Your task to perform on an android device: change the upload size in google photos Image 0: 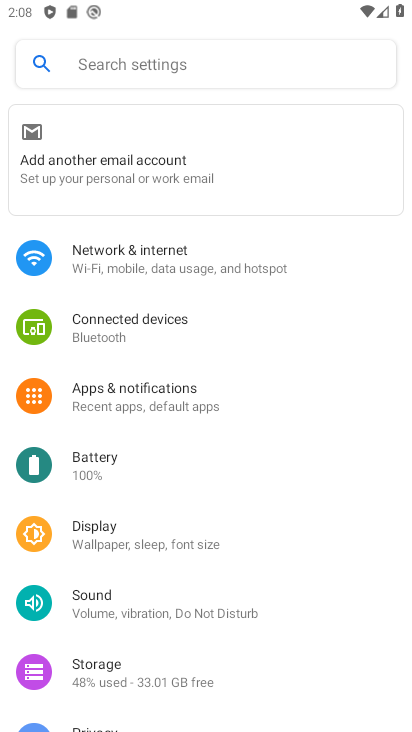
Step 0: press home button
Your task to perform on an android device: change the upload size in google photos Image 1: 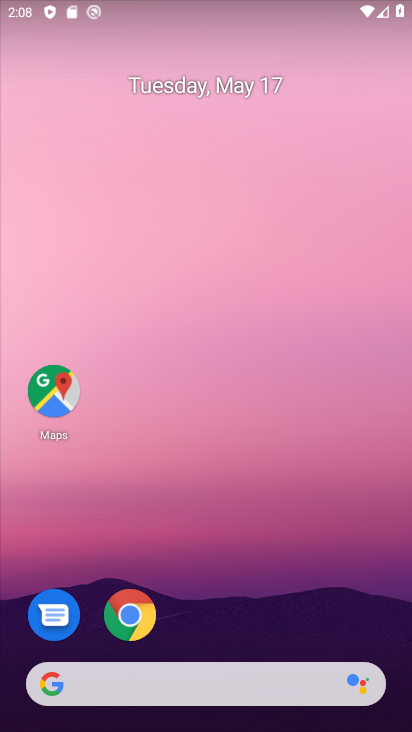
Step 1: drag from (229, 643) to (272, 160)
Your task to perform on an android device: change the upload size in google photos Image 2: 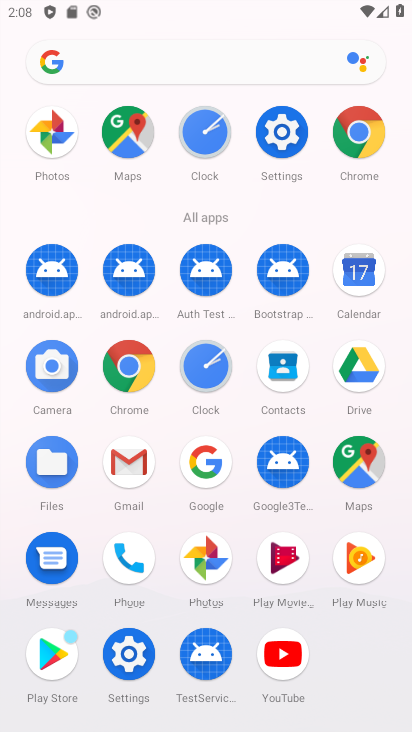
Step 2: click (204, 551)
Your task to perform on an android device: change the upload size in google photos Image 3: 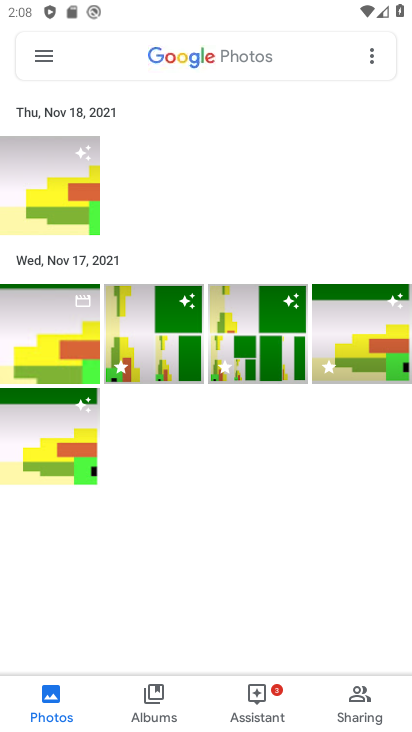
Step 3: click (43, 55)
Your task to perform on an android device: change the upload size in google photos Image 4: 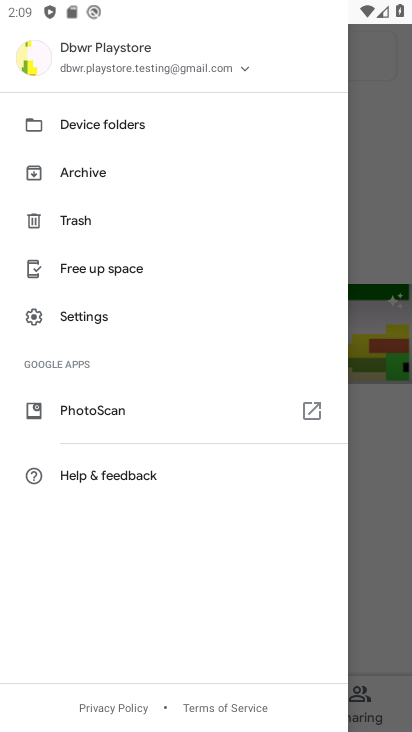
Step 4: click (117, 317)
Your task to perform on an android device: change the upload size in google photos Image 5: 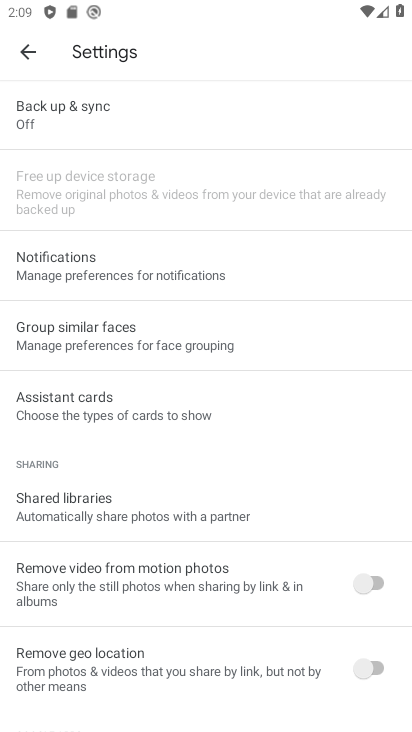
Step 5: click (103, 120)
Your task to perform on an android device: change the upload size in google photos Image 6: 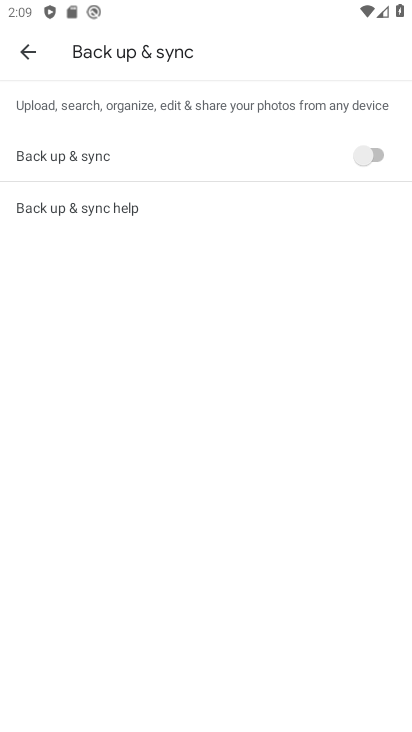
Step 6: click (33, 48)
Your task to perform on an android device: change the upload size in google photos Image 7: 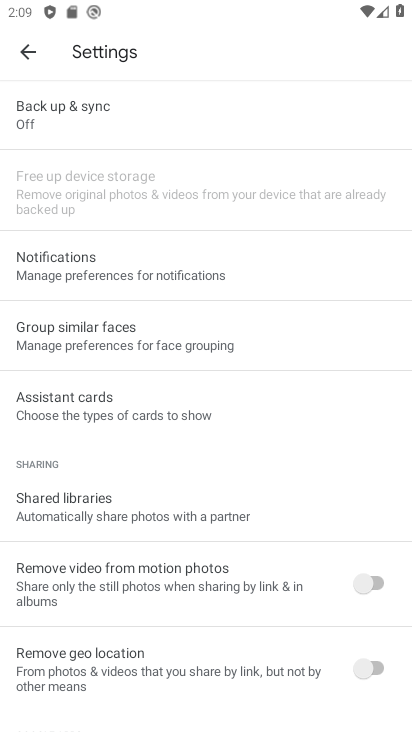
Step 7: drag from (124, 482) to (155, 37)
Your task to perform on an android device: change the upload size in google photos Image 8: 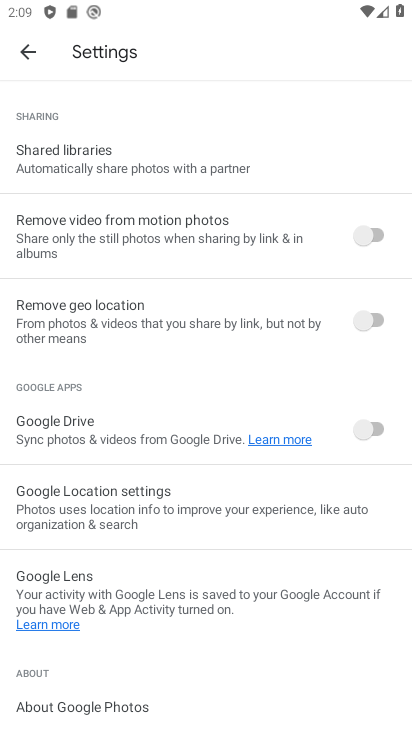
Step 8: drag from (135, 166) to (108, 645)
Your task to perform on an android device: change the upload size in google photos Image 9: 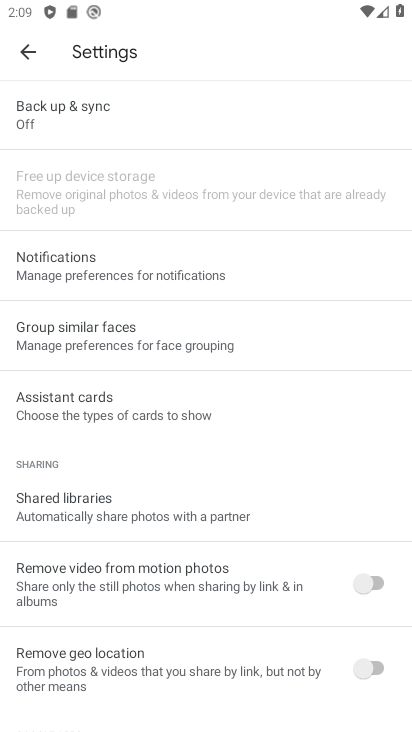
Step 9: click (93, 128)
Your task to perform on an android device: change the upload size in google photos Image 10: 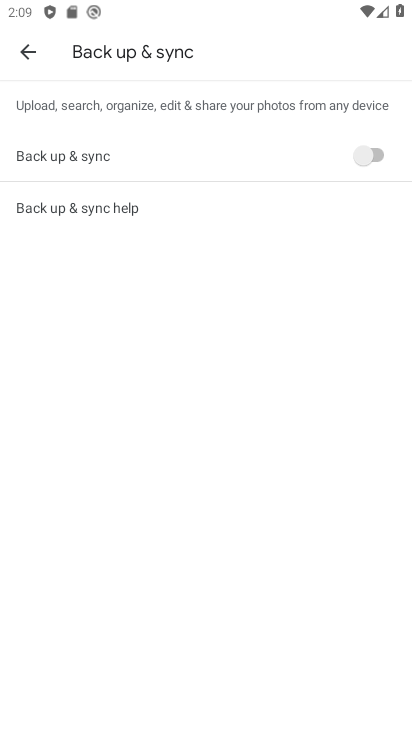
Step 10: click (378, 151)
Your task to perform on an android device: change the upload size in google photos Image 11: 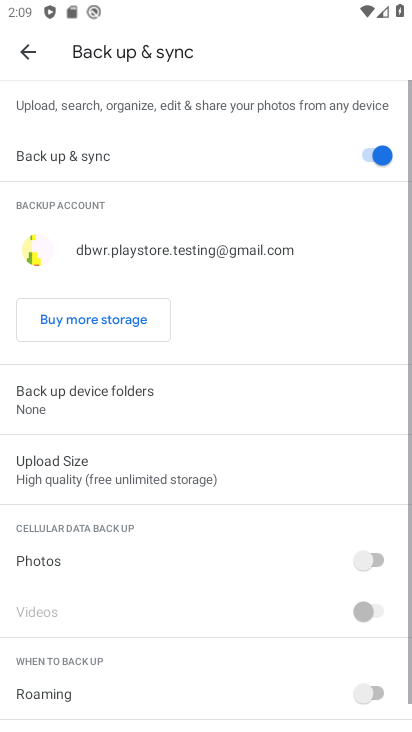
Step 11: click (92, 462)
Your task to perform on an android device: change the upload size in google photos Image 12: 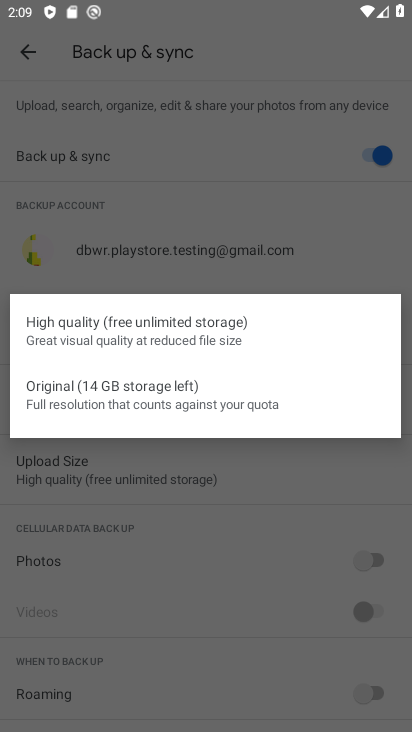
Step 12: click (94, 396)
Your task to perform on an android device: change the upload size in google photos Image 13: 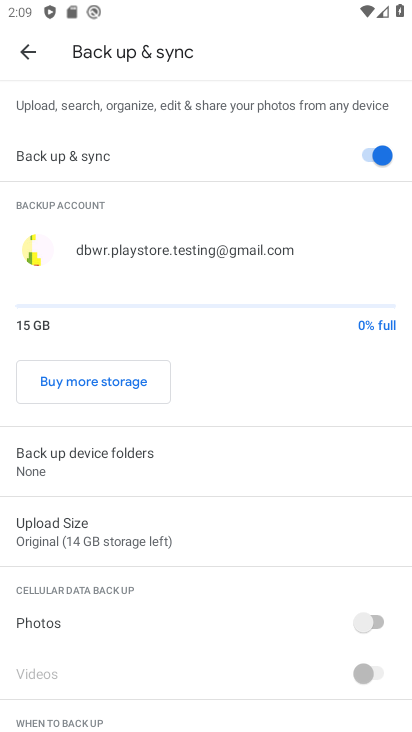
Step 13: task complete